Your task to perform on an android device: Show the shopping cart on newegg.com. Search for "rayovac triple a" on newegg.com, select the first entry, and add it to the cart. Image 0: 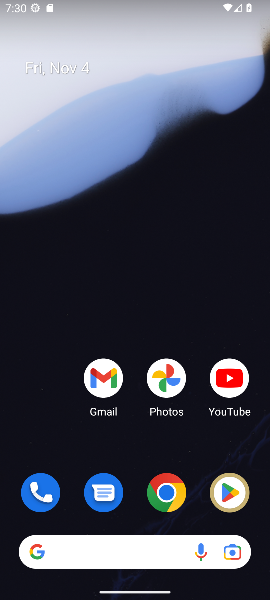
Step 0: drag from (126, 393) to (62, 19)
Your task to perform on an android device: Show the shopping cart on newegg.com. Search for "rayovac triple a" on newegg.com, select the first entry, and add it to the cart. Image 1: 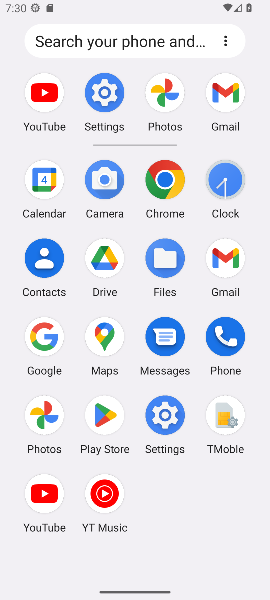
Step 1: click (161, 177)
Your task to perform on an android device: Show the shopping cart on newegg.com. Search for "rayovac triple a" on newegg.com, select the first entry, and add it to the cart. Image 2: 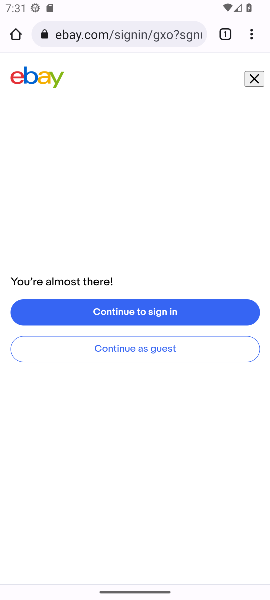
Step 2: click (148, 31)
Your task to perform on an android device: Show the shopping cart on newegg.com. Search for "rayovac triple a" on newegg.com, select the first entry, and add it to the cart. Image 3: 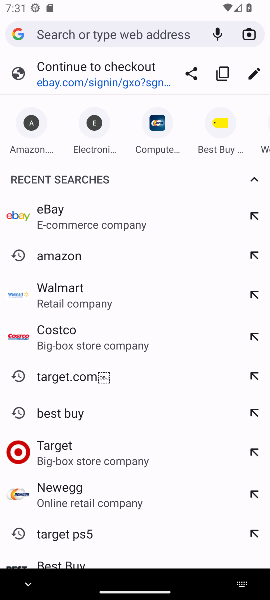
Step 3: type "newegg.com"
Your task to perform on an android device: Show the shopping cart on newegg.com. Search for "rayovac triple a" on newegg.com, select the first entry, and add it to the cart. Image 4: 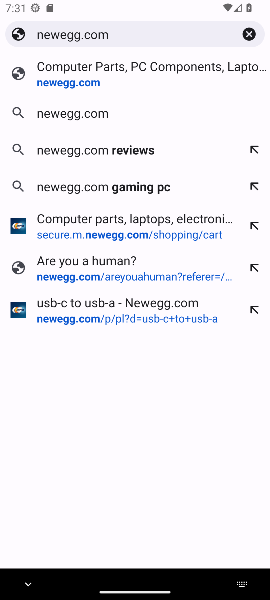
Step 4: press enter
Your task to perform on an android device: Show the shopping cart on newegg.com. Search for "rayovac triple a" on newegg.com, select the first entry, and add it to the cart. Image 5: 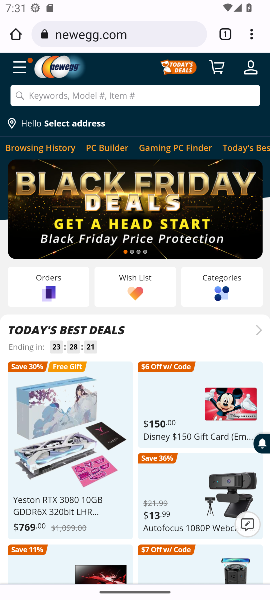
Step 5: click (218, 93)
Your task to perform on an android device: Show the shopping cart on newegg.com. Search for "rayovac triple a" on newegg.com, select the first entry, and add it to the cart. Image 6: 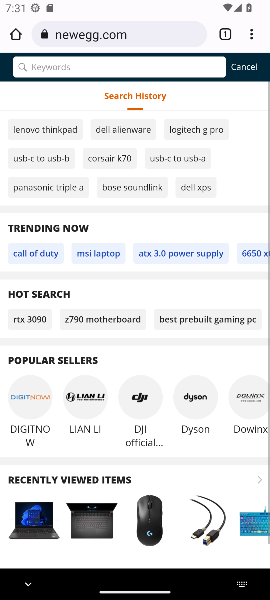
Step 6: type "rayovac triple a"
Your task to perform on an android device: Show the shopping cart on newegg.com. Search for "rayovac triple a" on newegg.com, select the first entry, and add it to the cart. Image 7: 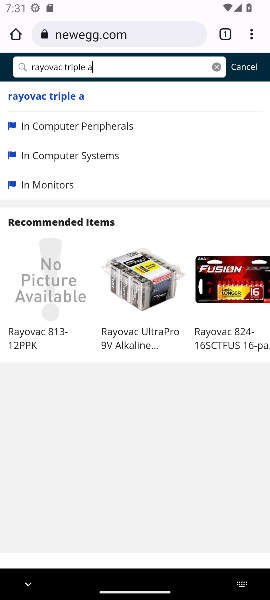
Step 7: press enter
Your task to perform on an android device: Show the shopping cart on newegg.com. Search for "rayovac triple a" on newegg.com, select the first entry, and add it to the cart. Image 8: 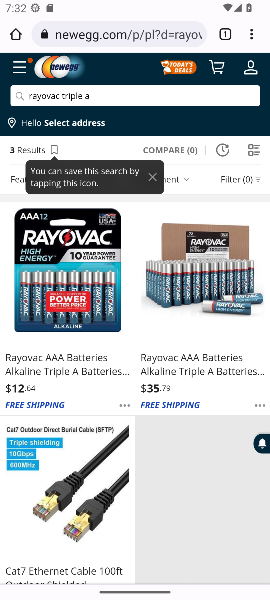
Step 8: click (84, 328)
Your task to perform on an android device: Show the shopping cart on newegg.com. Search for "rayovac triple a" on newegg.com, select the first entry, and add it to the cart. Image 9: 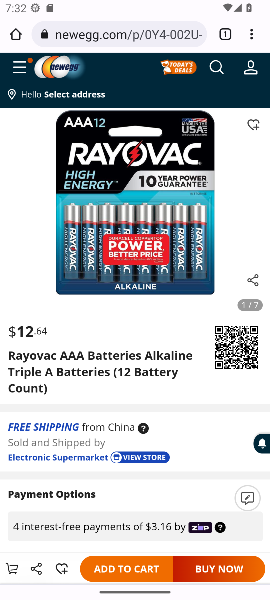
Step 9: click (146, 565)
Your task to perform on an android device: Show the shopping cart on newegg.com. Search for "rayovac triple a" on newegg.com, select the first entry, and add it to the cart. Image 10: 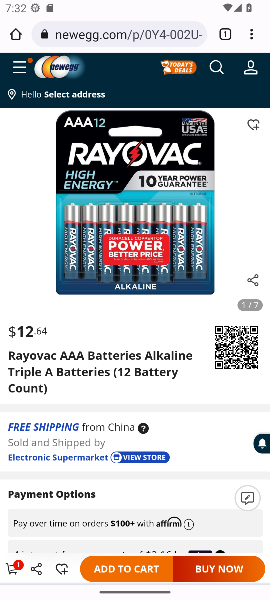
Step 10: click (16, 565)
Your task to perform on an android device: Show the shopping cart on newegg.com. Search for "rayovac triple a" on newegg.com, select the first entry, and add it to the cart. Image 11: 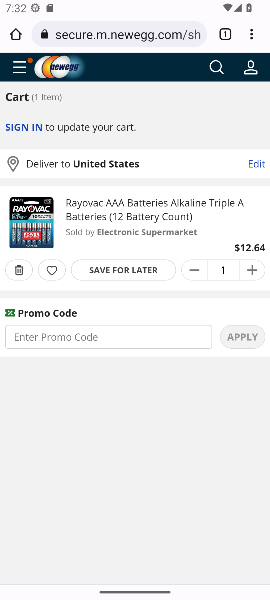
Step 11: task complete